Your task to perform on an android device: Google the capital of Paraguay Image 0: 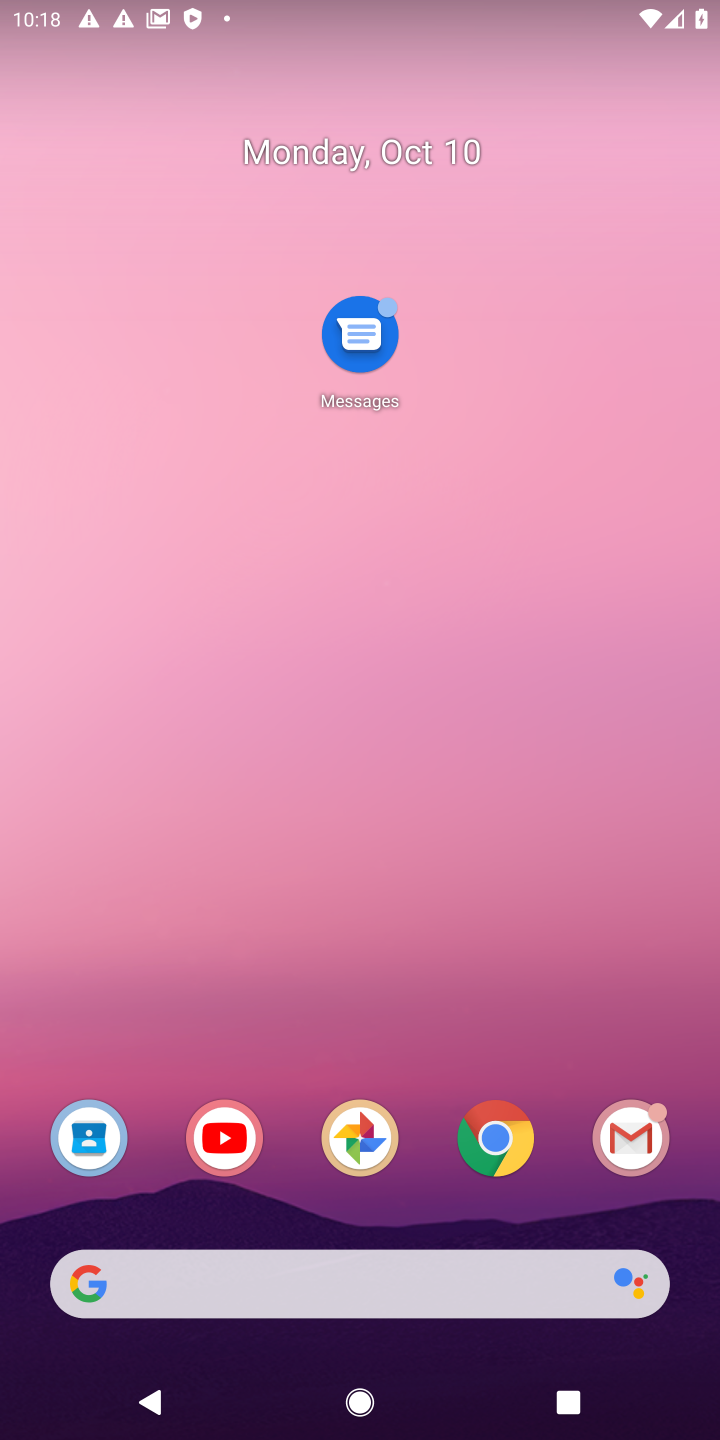
Step 0: click (490, 1136)
Your task to perform on an android device: Google the capital of Paraguay Image 1: 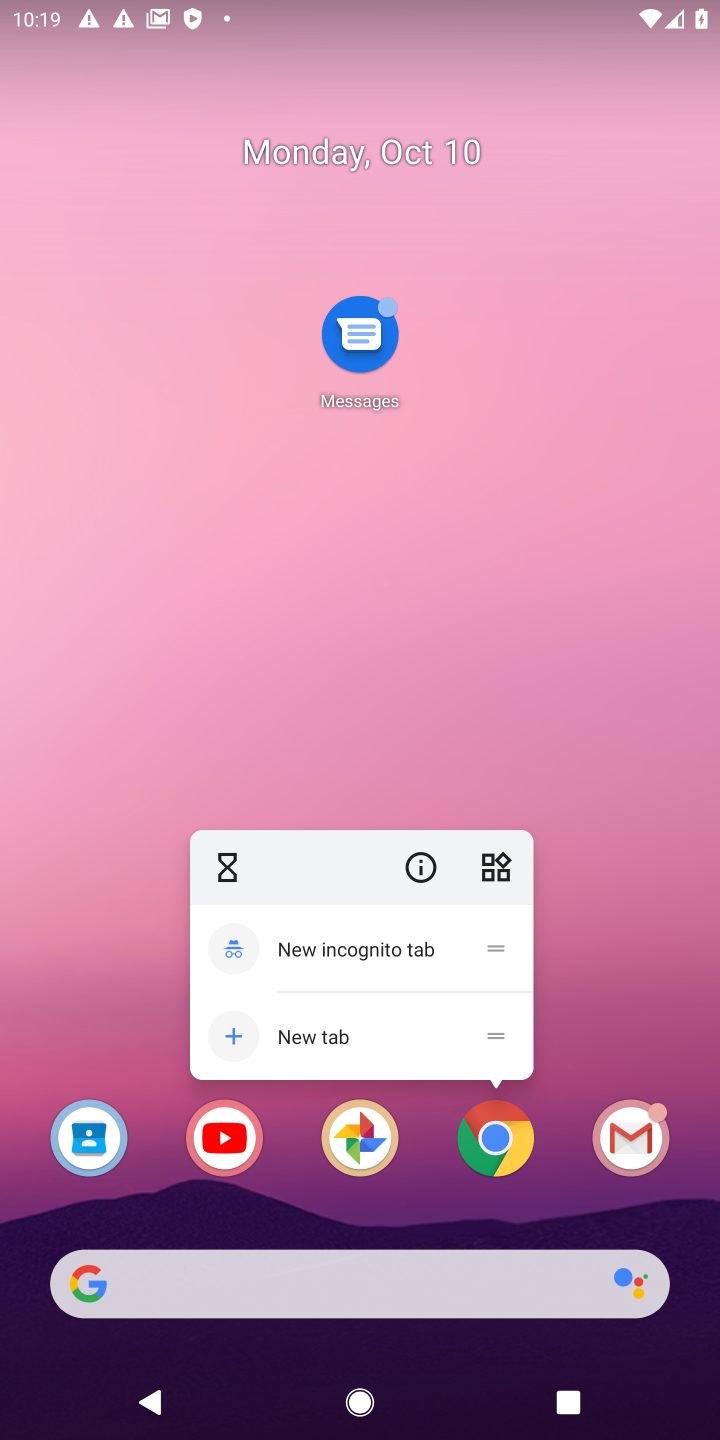
Step 1: click (503, 1162)
Your task to perform on an android device: Google the capital of Paraguay Image 2: 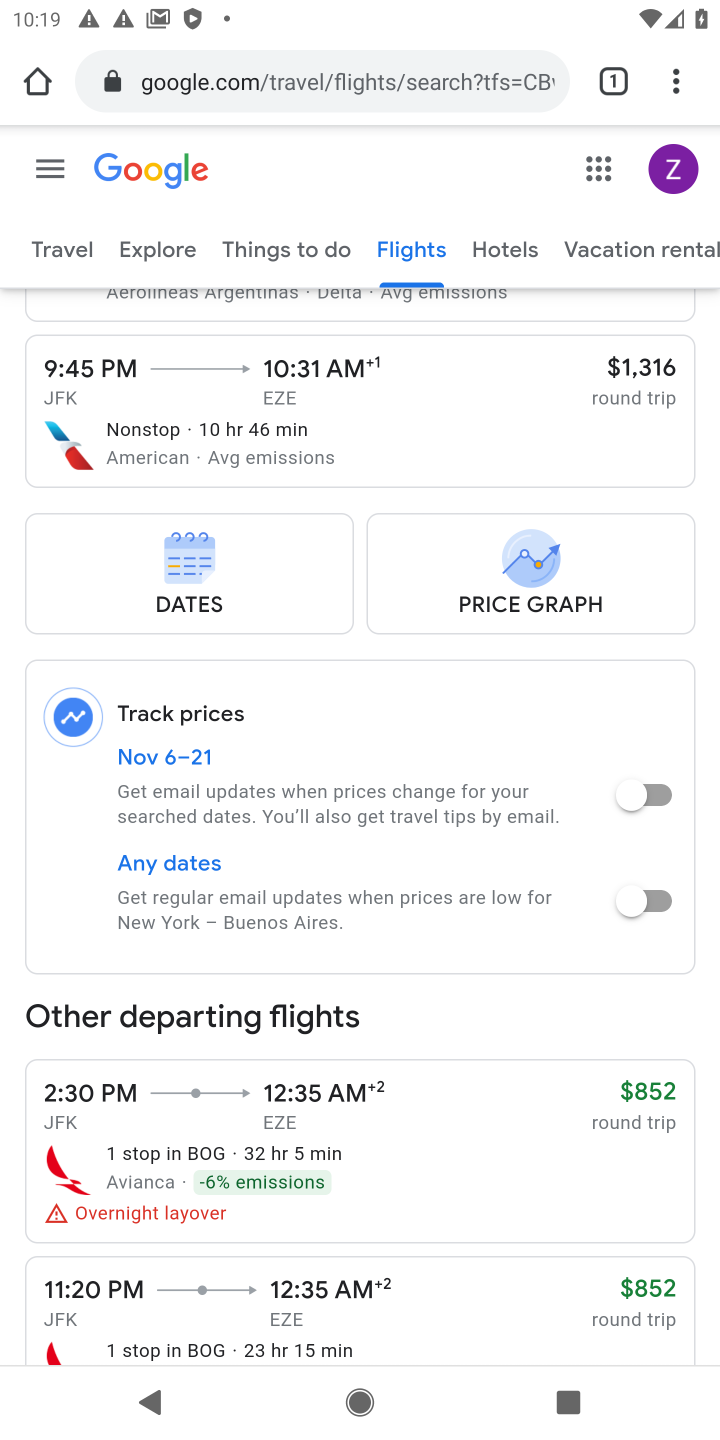
Step 2: click (212, 79)
Your task to perform on an android device: Google the capital of Paraguay Image 3: 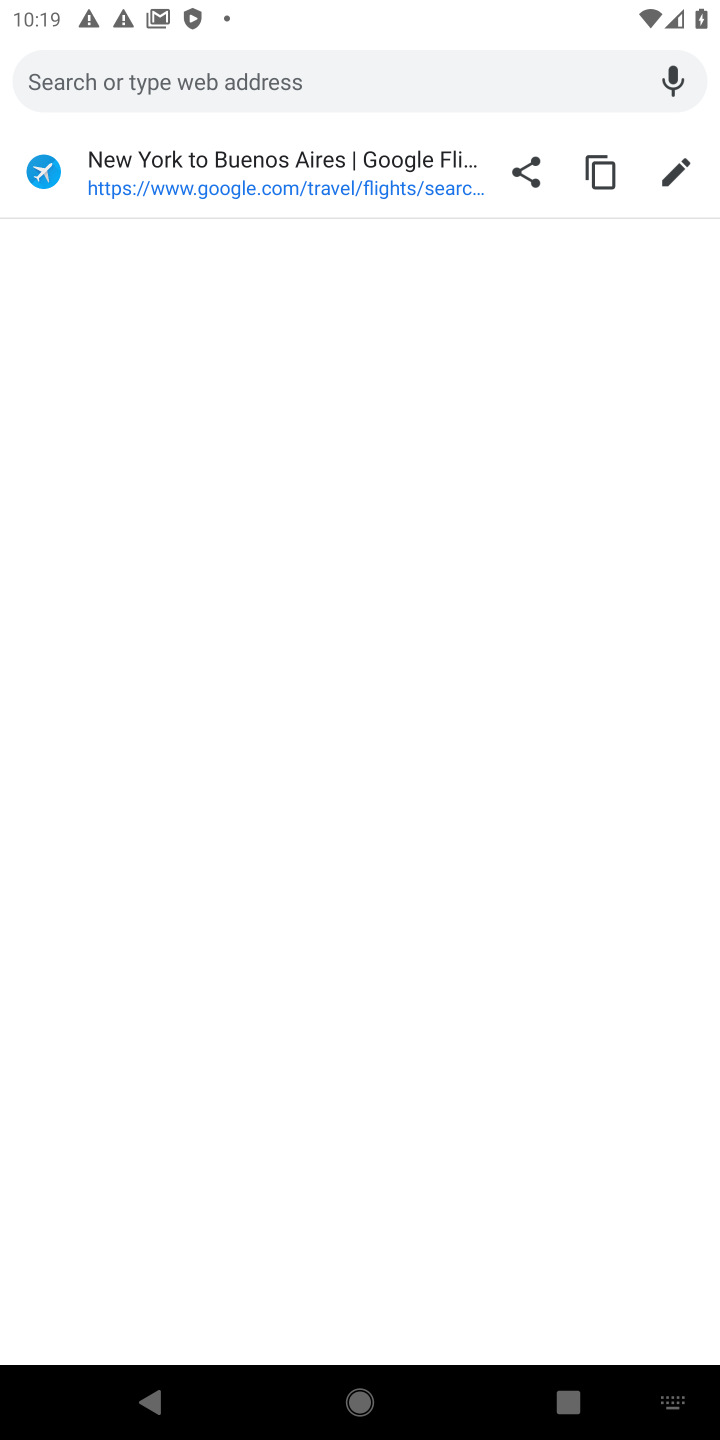
Step 3: type "capital of Paraguay"
Your task to perform on an android device: Google the capital of Paraguay Image 4: 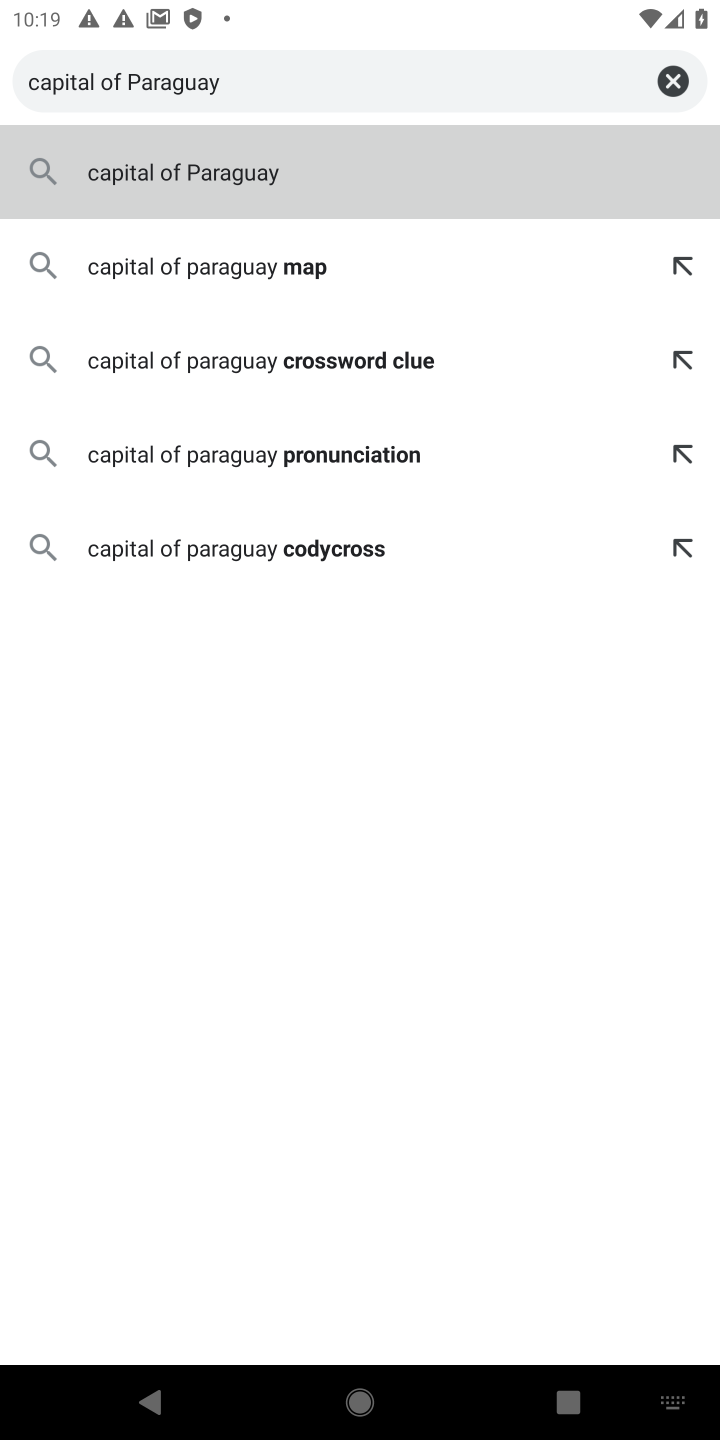
Step 4: press enter
Your task to perform on an android device: Google the capital of Paraguay Image 5: 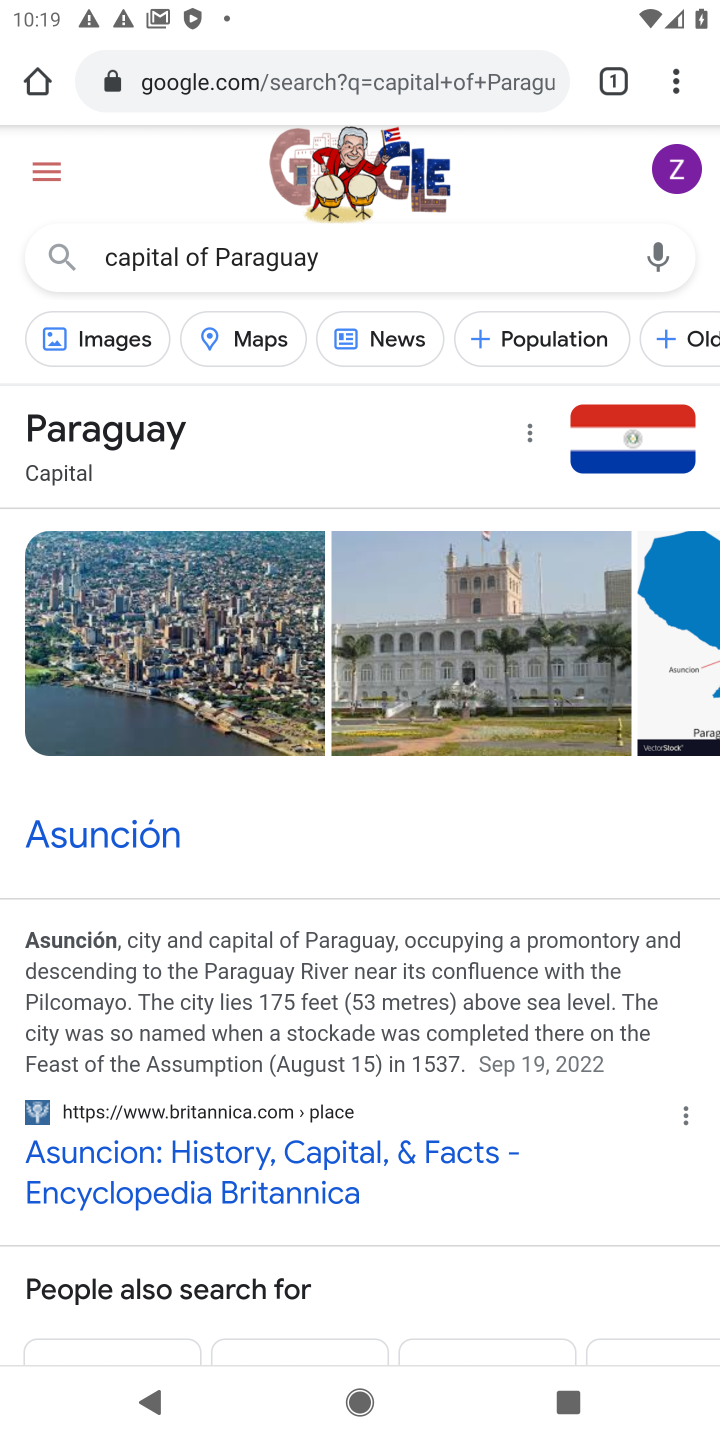
Step 5: task complete